Your task to perform on an android device: open a bookmark in the chrome app Image 0: 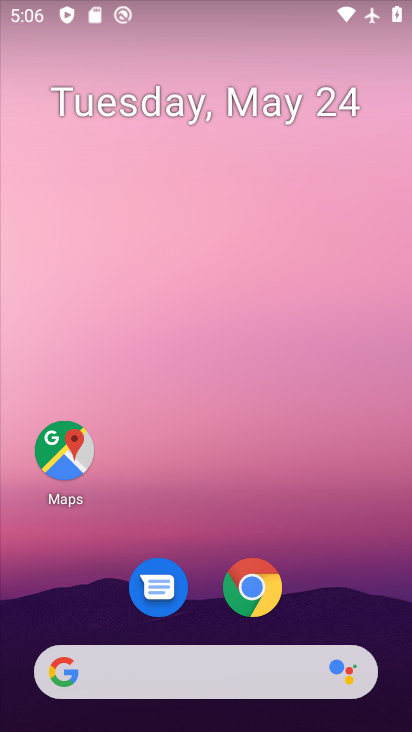
Step 0: click (268, 581)
Your task to perform on an android device: open a bookmark in the chrome app Image 1: 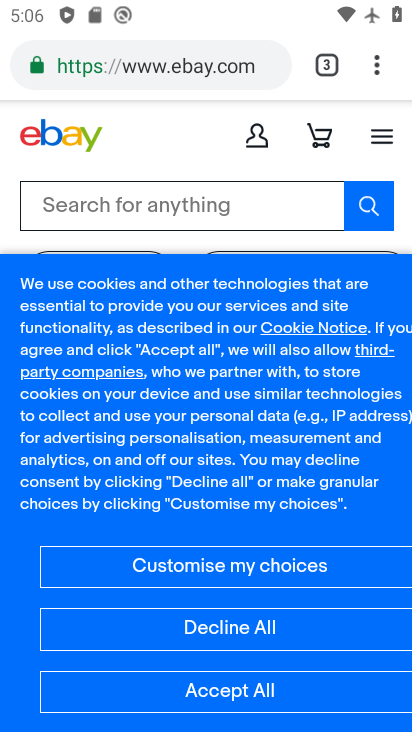
Step 1: click (374, 71)
Your task to perform on an android device: open a bookmark in the chrome app Image 2: 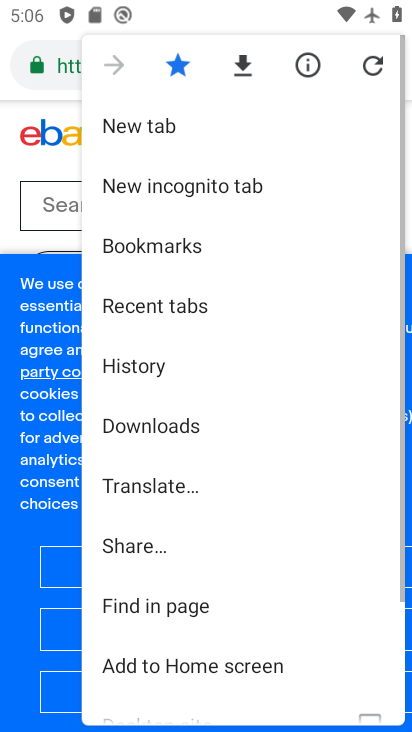
Step 2: click (226, 255)
Your task to perform on an android device: open a bookmark in the chrome app Image 3: 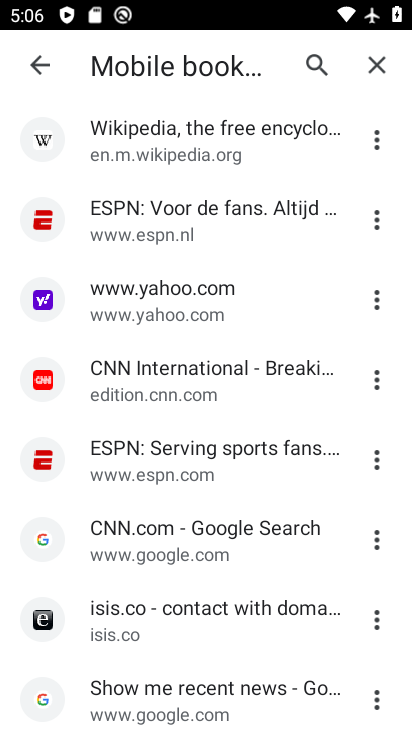
Step 3: click (223, 372)
Your task to perform on an android device: open a bookmark in the chrome app Image 4: 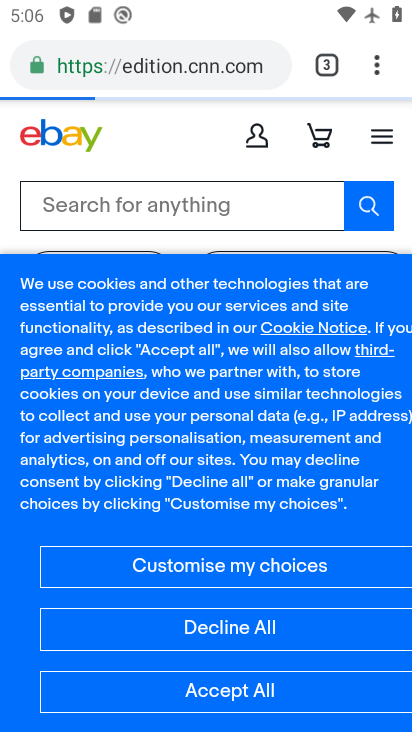
Step 4: task complete